Your task to perform on an android device: Open eBay Image 0: 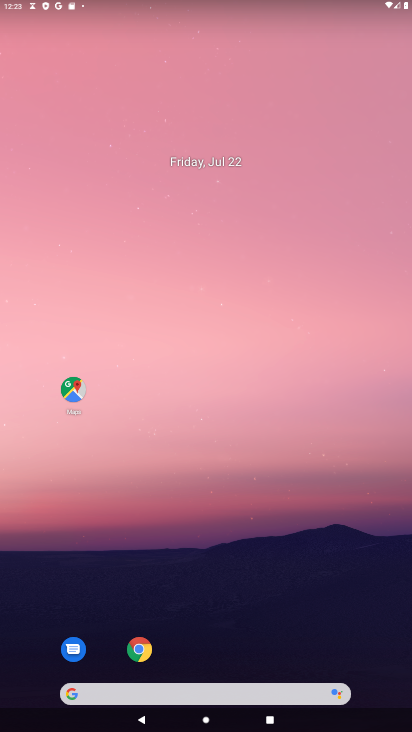
Step 0: click (139, 649)
Your task to perform on an android device: Open eBay Image 1: 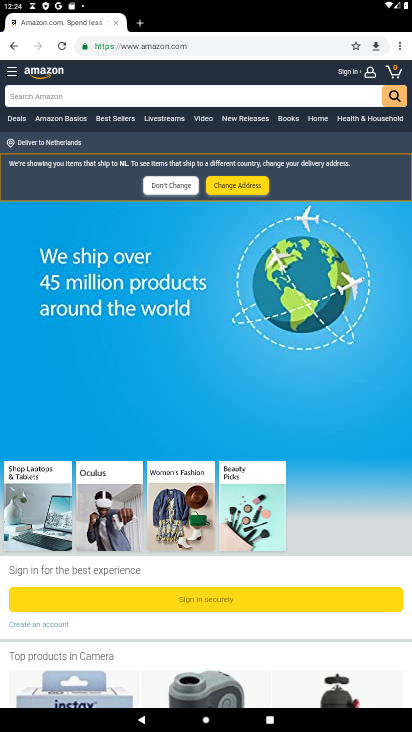
Step 1: click (141, 28)
Your task to perform on an android device: Open eBay Image 2: 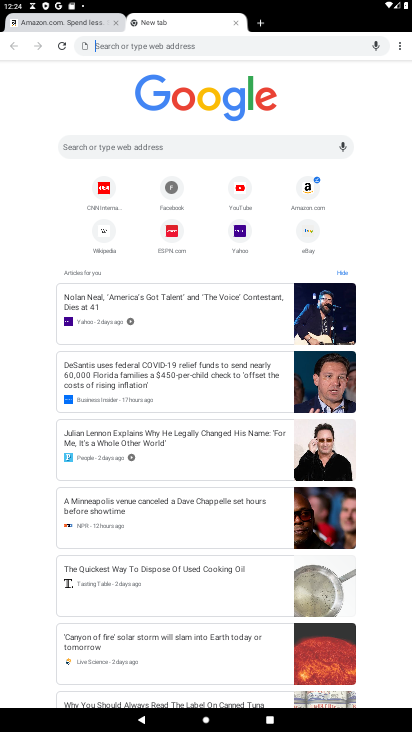
Step 2: click (117, 20)
Your task to perform on an android device: Open eBay Image 3: 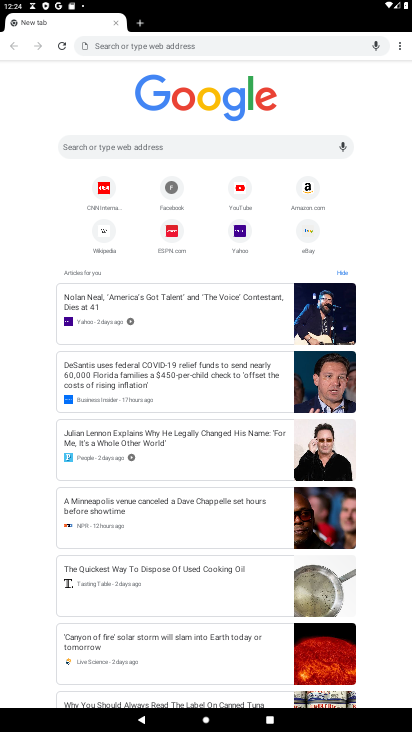
Step 3: click (307, 236)
Your task to perform on an android device: Open eBay Image 4: 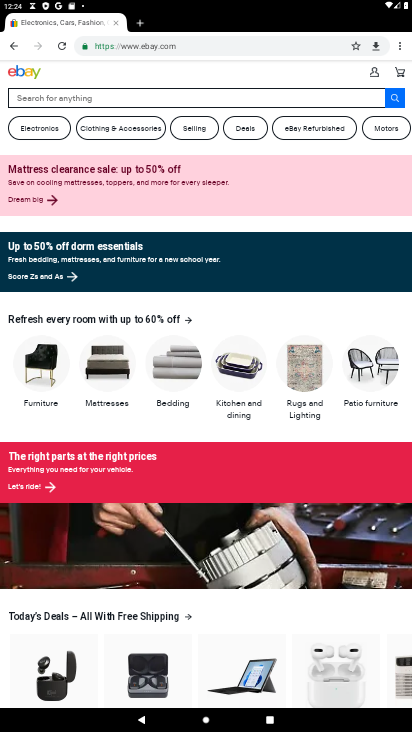
Step 4: task complete